Your task to perform on an android device: Open Google Chrome Image 0: 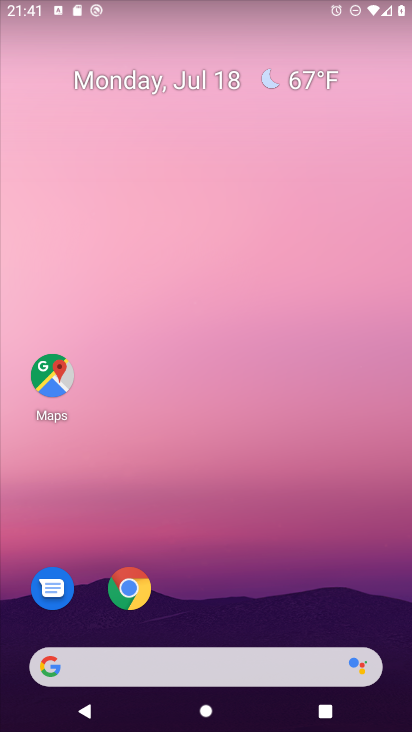
Step 0: click (131, 590)
Your task to perform on an android device: Open Google Chrome Image 1: 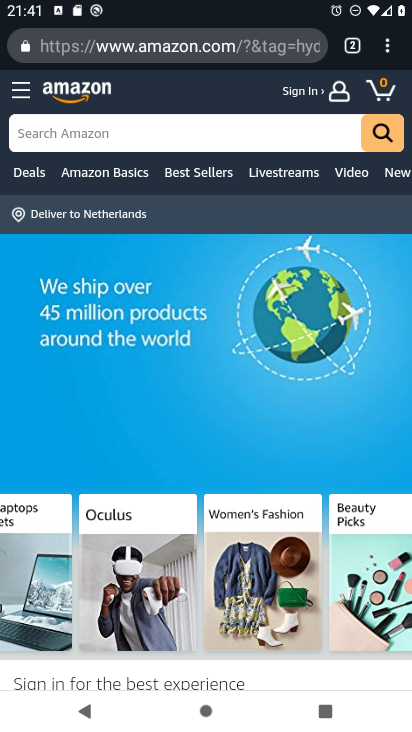
Step 1: task complete